Your task to perform on an android device: Go to sound settings Image 0: 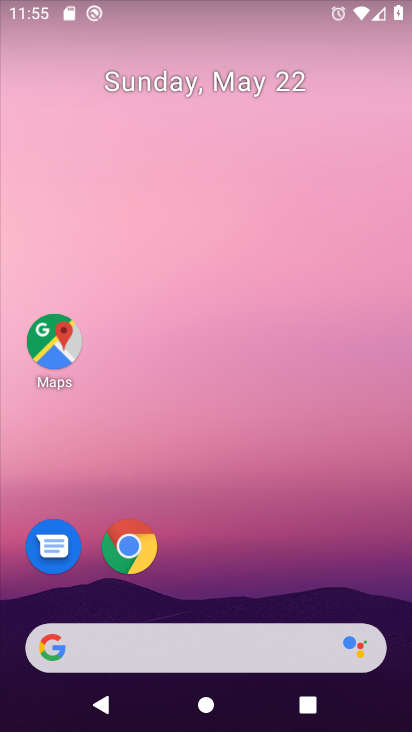
Step 0: drag from (225, 562) to (246, 30)
Your task to perform on an android device: Go to sound settings Image 1: 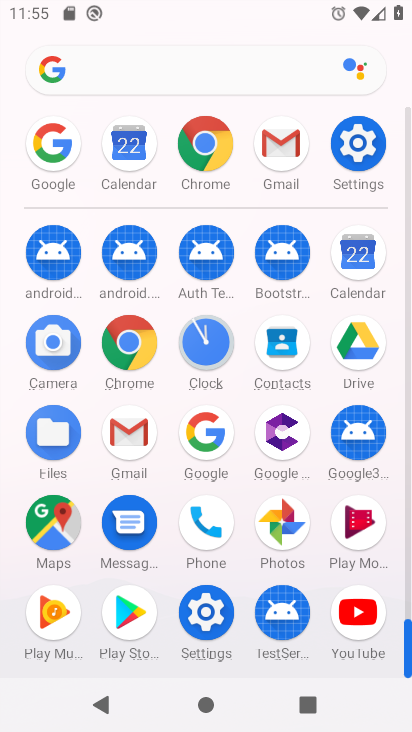
Step 1: click (356, 163)
Your task to perform on an android device: Go to sound settings Image 2: 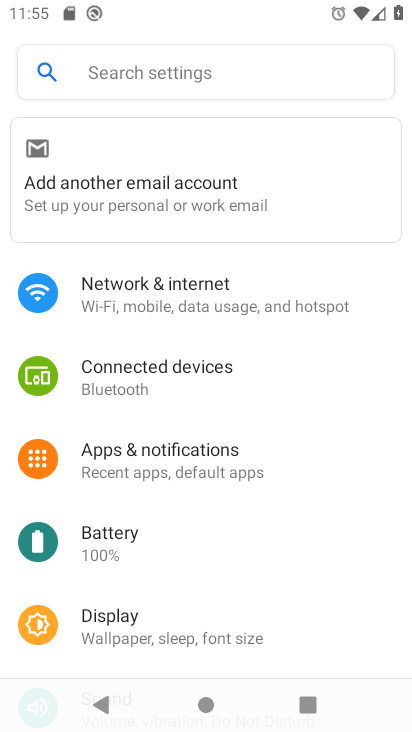
Step 2: drag from (253, 570) to (355, 162)
Your task to perform on an android device: Go to sound settings Image 3: 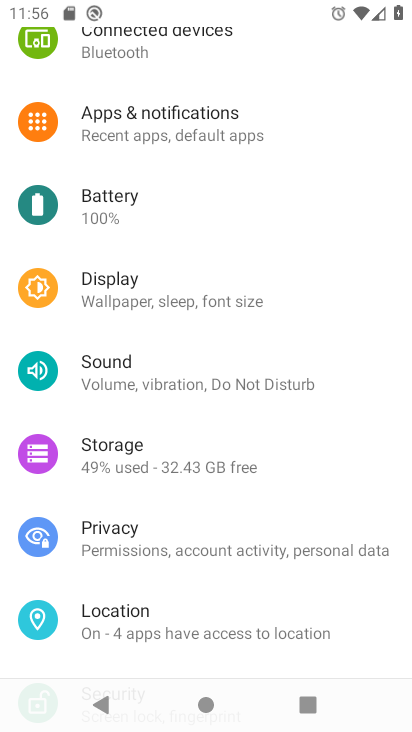
Step 3: click (222, 373)
Your task to perform on an android device: Go to sound settings Image 4: 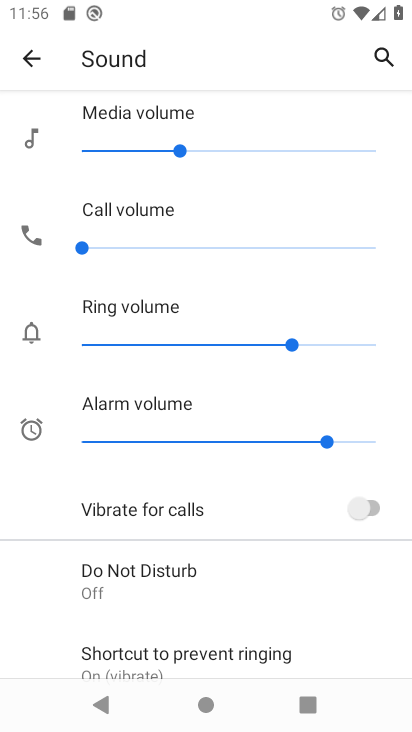
Step 4: task complete